Your task to perform on an android device: Open Youtube and go to "Your channel" Image 0: 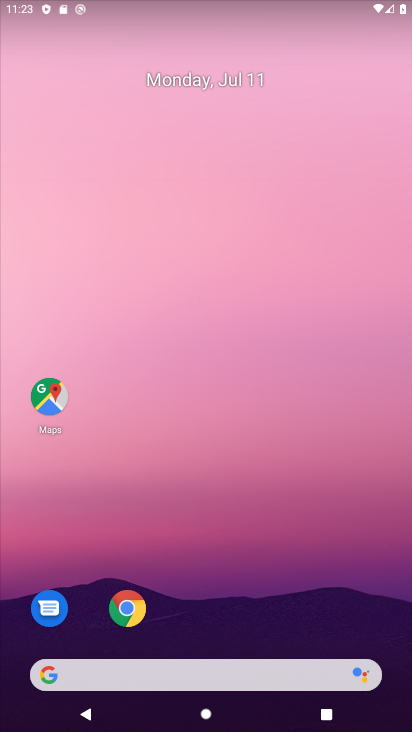
Step 0: drag from (195, 618) to (166, 112)
Your task to perform on an android device: Open Youtube and go to "Your channel" Image 1: 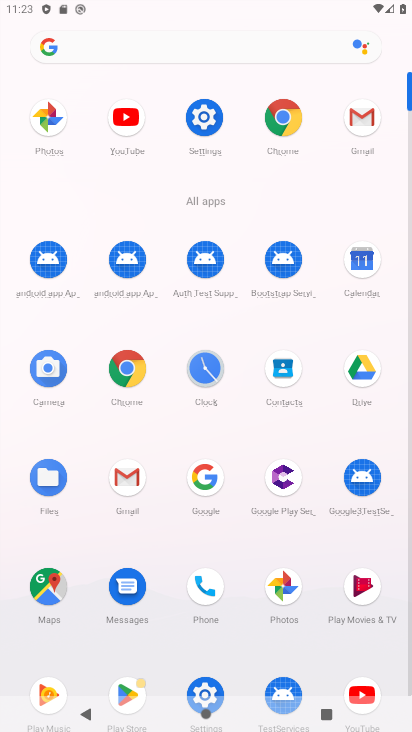
Step 1: click (133, 106)
Your task to perform on an android device: Open Youtube and go to "Your channel" Image 2: 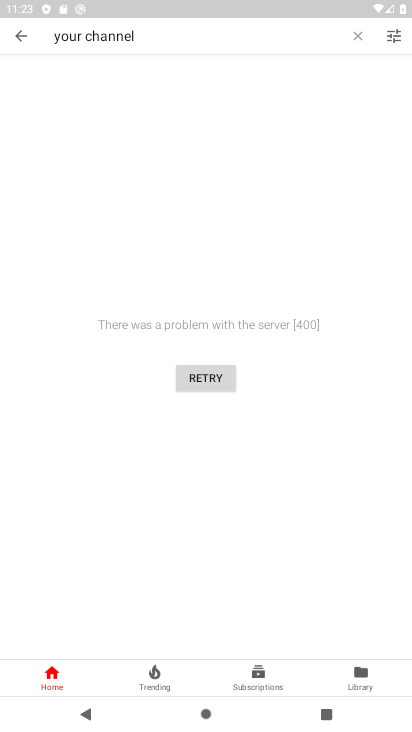
Step 2: click (186, 374)
Your task to perform on an android device: Open Youtube and go to "Your channel" Image 3: 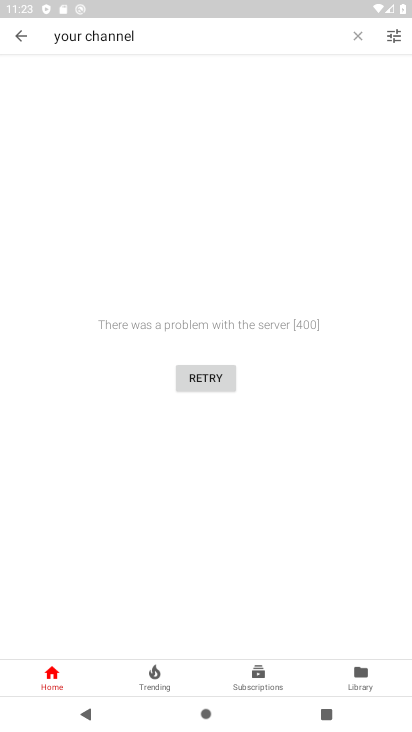
Step 3: task complete